Your task to perform on an android device: Search for pizza restaurants on Maps Image 0: 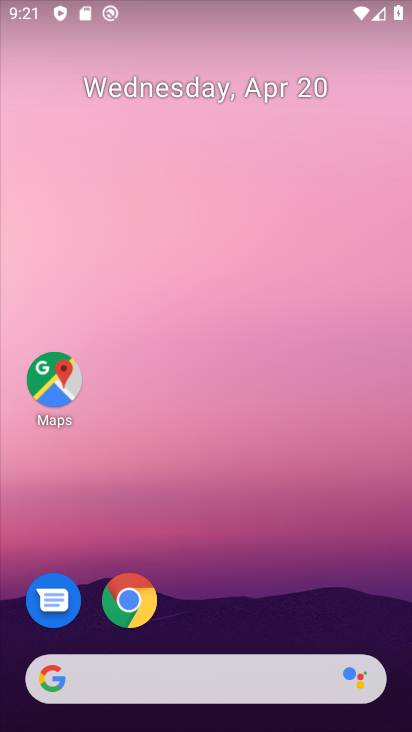
Step 0: drag from (214, 646) to (243, 24)
Your task to perform on an android device: Search for pizza restaurants on Maps Image 1: 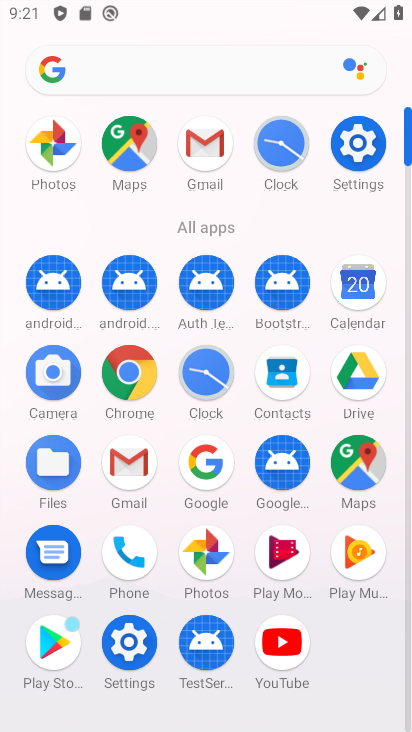
Step 1: click (355, 462)
Your task to perform on an android device: Search for pizza restaurants on Maps Image 2: 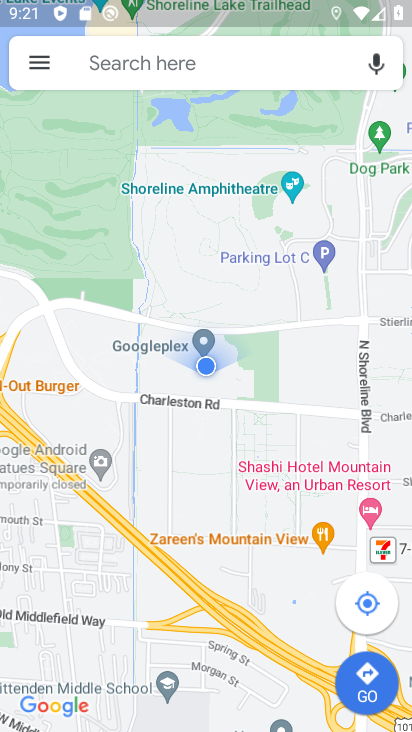
Step 2: click (163, 51)
Your task to perform on an android device: Search for pizza restaurants on Maps Image 3: 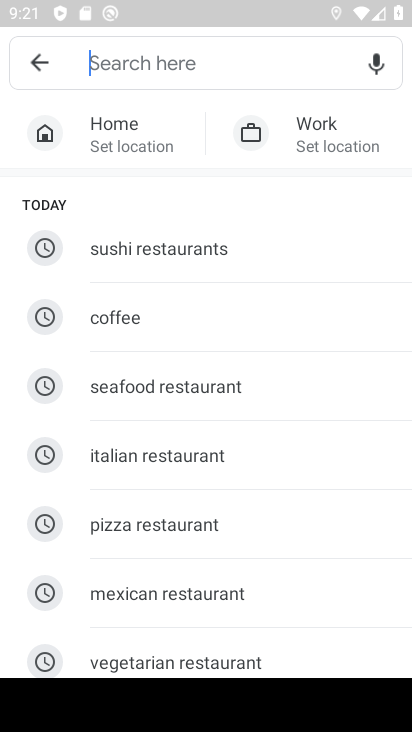
Step 3: click (144, 538)
Your task to perform on an android device: Search for pizza restaurants on Maps Image 4: 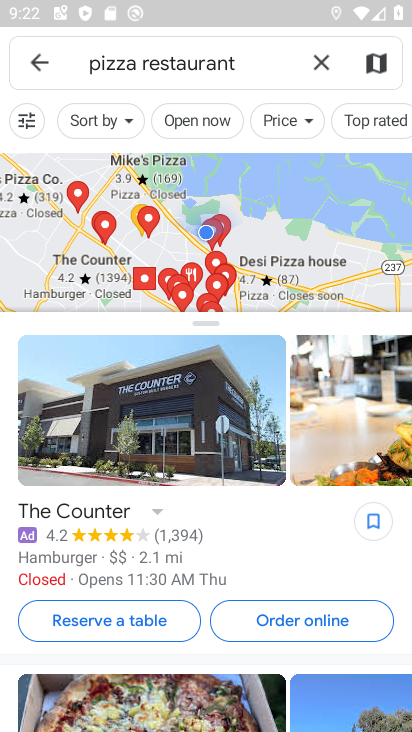
Step 4: task complete